Your task to perform on an android device: Open Google Maps Image 0: 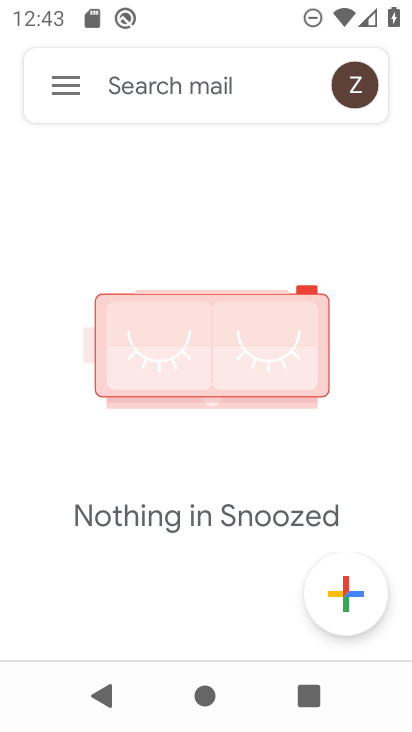
Step 0: press back button
Your task to perform on an android device: Open Google Maps Image 1: 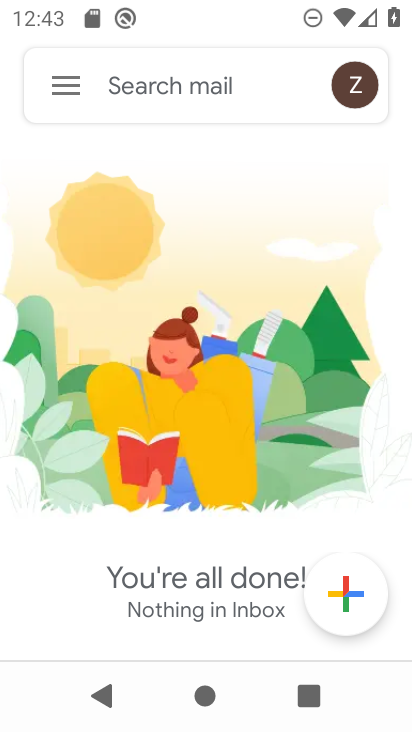
Step 1: press back button
Your task to perform on an android device: Open Google Maps Image 2: 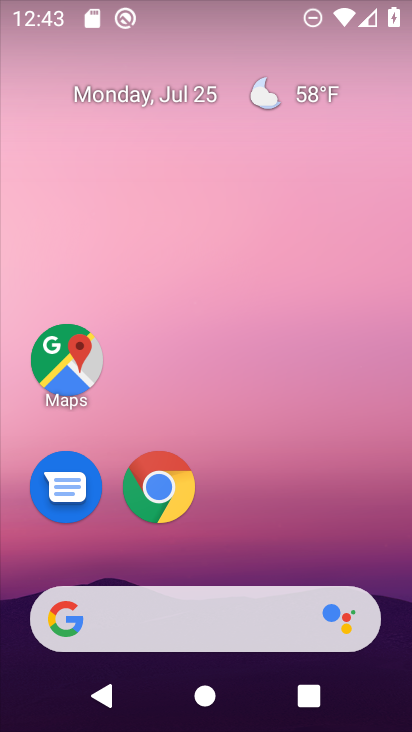
Step 2: click (64, 356)
Your task to perform on an android device: Open Google Maps Image 3: 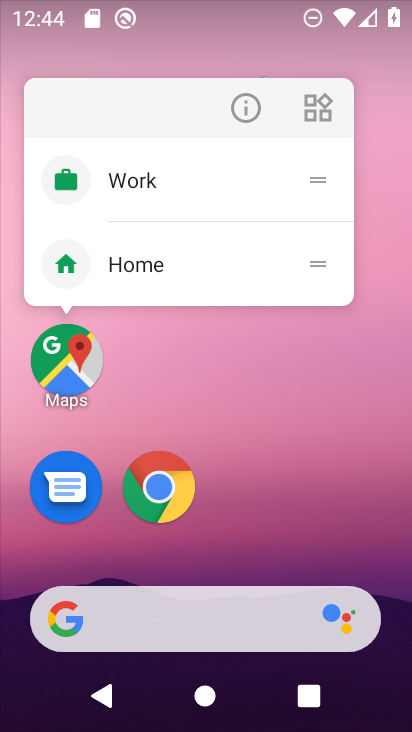
Step 3: click (81, 351)
Your task to perform on an android device: Open Google Maps Image 4: 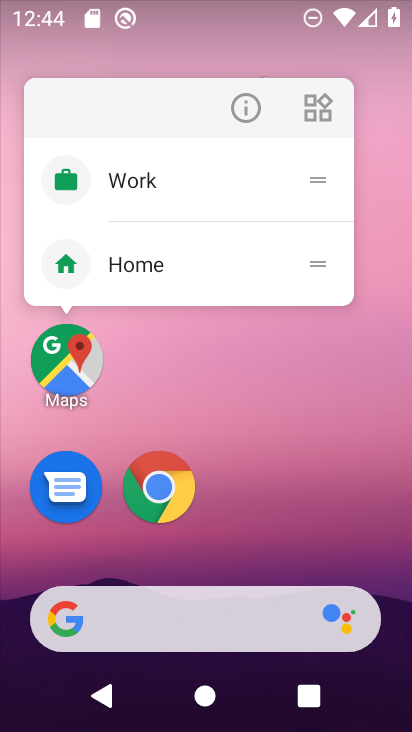
Step 4: click (57, 364)
Your task to perform on an android device: Open Google Maps Image 5: 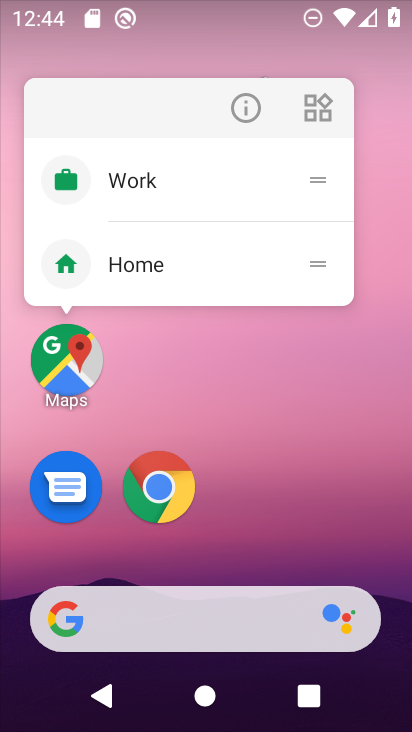
Step 5: click (71, 359)
Your task to perform on an android device: Open Google Maps Image 6: 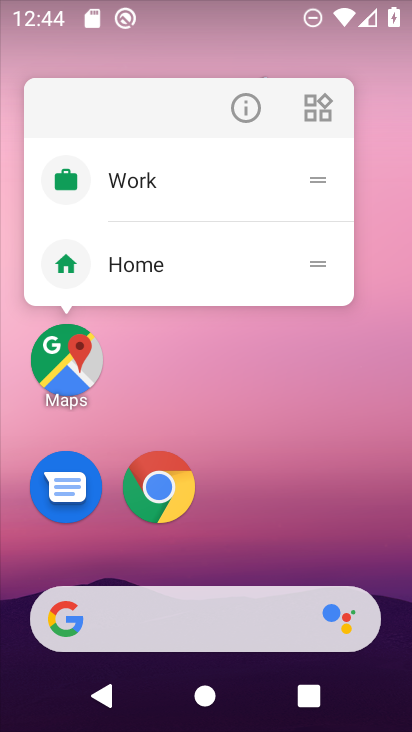
Step 6: click (70, 360)
Your task to perform on an android device: Open Google Maps Image 7: 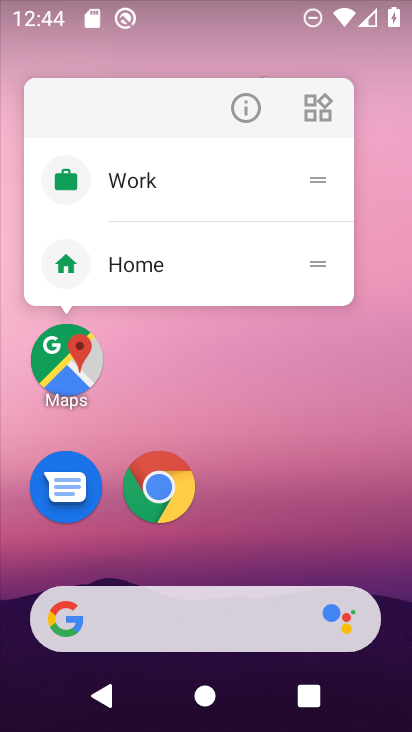
Step 7: click (64, 365)
Your task to perform on an android device: Open Google Maps Image 8: 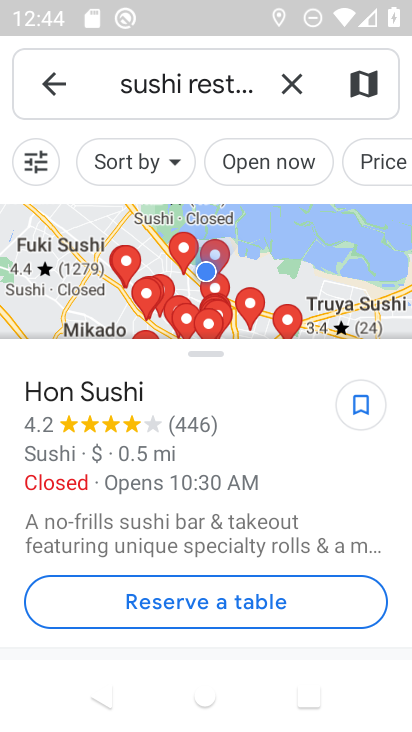
Step 8: task complete